Your task to perform on an android device: find snoozed emails in the gmail app Image 0: 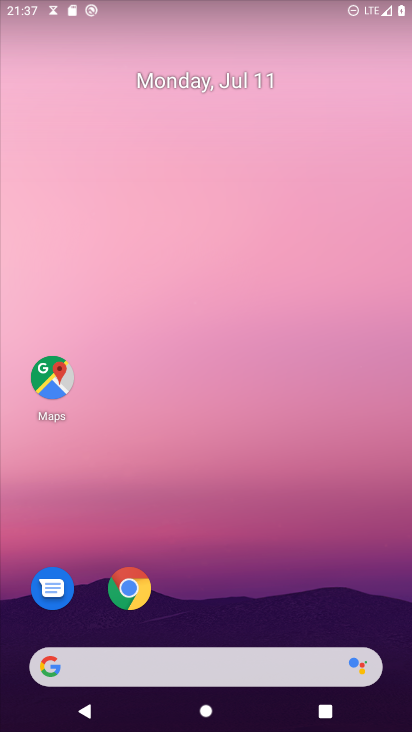
Step 0: press home button
Your task to perform on an android device: find snoozed emails in the gmail app Image 1: 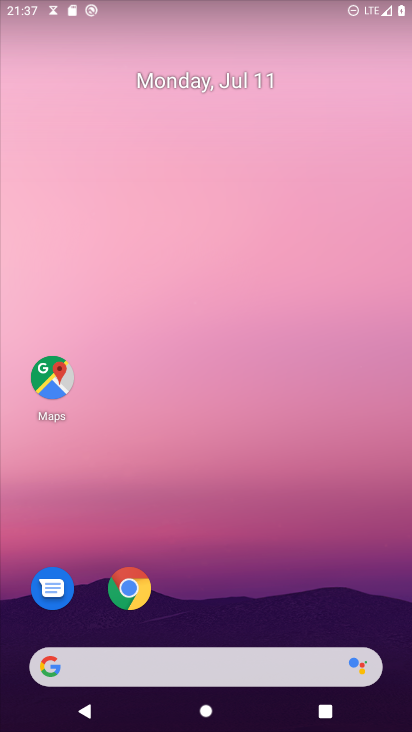
Step 1: drag from (214, 624) to (195, 20)
Your task to perform on an android device: find snoozed emails in the gmail app Image 2: 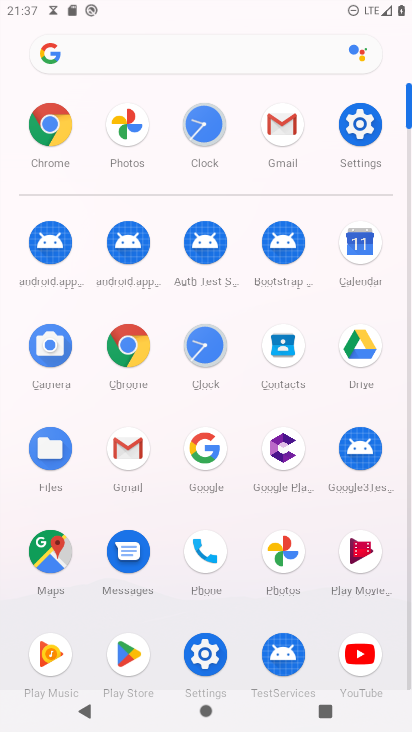
Step 2: click (283, 133)
Your task to perform on an android device: find snoozed emails in the gmail app Image 3: 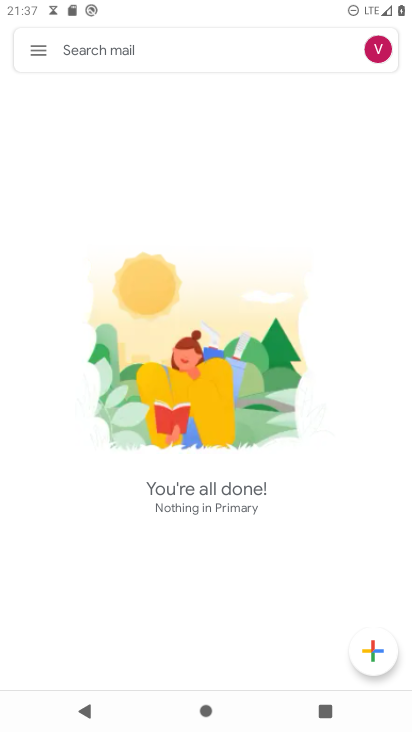
Step 3: click (37, 52)
Your task to perform on an android device: find snoozed emails in the gmail app Image 4: 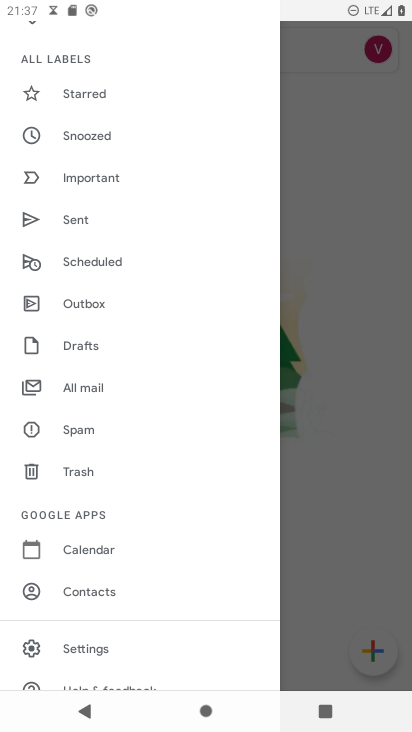
Step 4: click (92, 137)
Your task to perform on an android device: find snoozed emails in the gmail app Image 5: 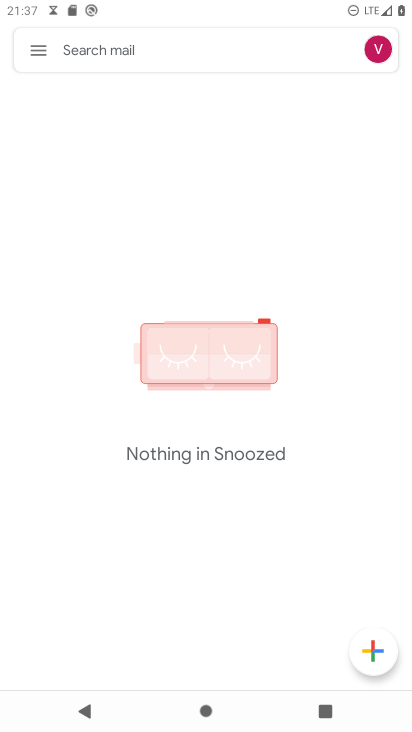
Step 5: task complete